Your task to perform on an android device: check android version Image 0: 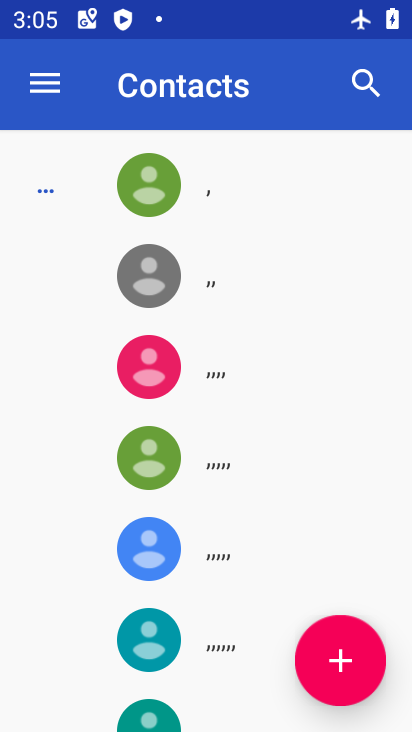
Step 0: press home button
Your task to perform on an android device: check android version Image 1: 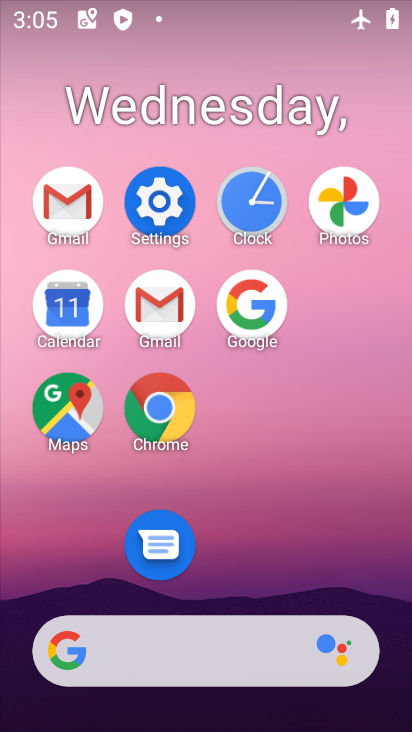
Step 1: click (185, 212)
Your task to perform on an android device: check android version Image 2: 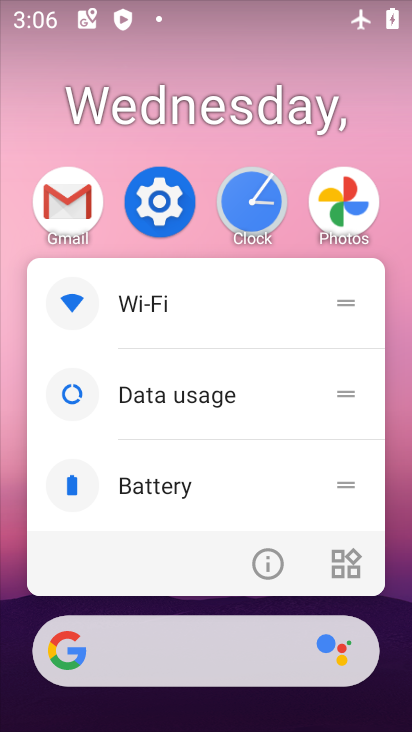
Step 2: click (162, 216)
Your task to perform on an android device: check android version Image 3: 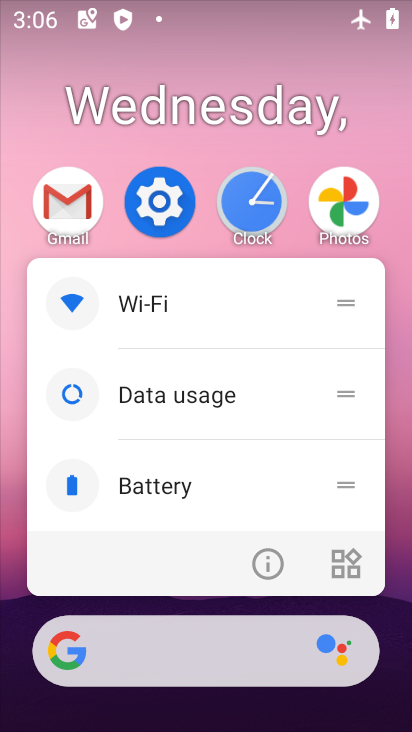
Step 3: click (167, 188)
Your task to perform on an android device: check android version Image 4: 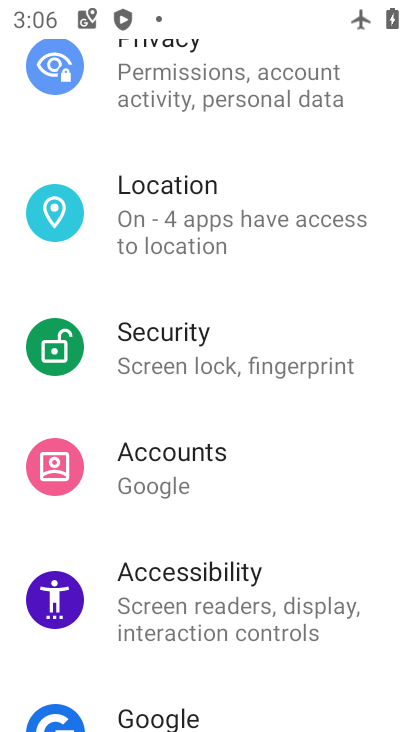
Step 4: drag from (304, 613) to (246, 311)
Your task to perform on an android device: check android version Image 5: 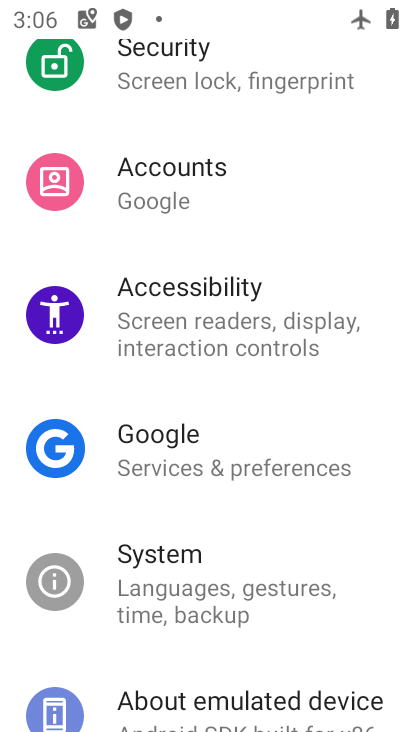
Step 5: drag from (270, 635) to (217, 315)
Your task to perform on an android device: check android version Image 6: 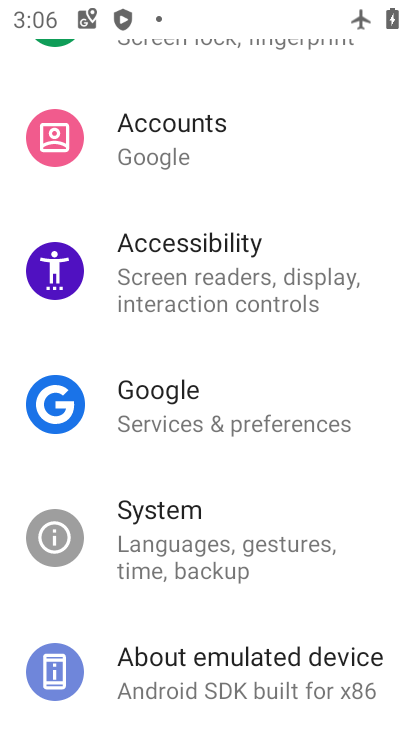
Step 6: click (258, 642)
Your task to perform on an android device: check android version Image 7: 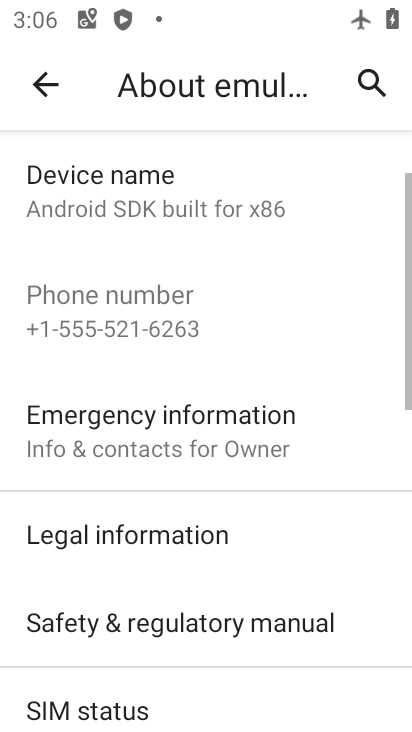
Step 7: task complete